Your task to perform on an android device: Go to accessibility settings Image 0: 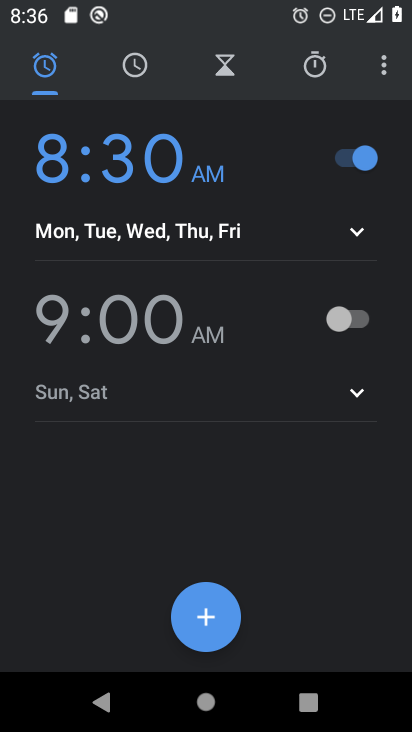
Step 0: press home button
Your task to perform on an android device: Go to accessibility settings Image 1: 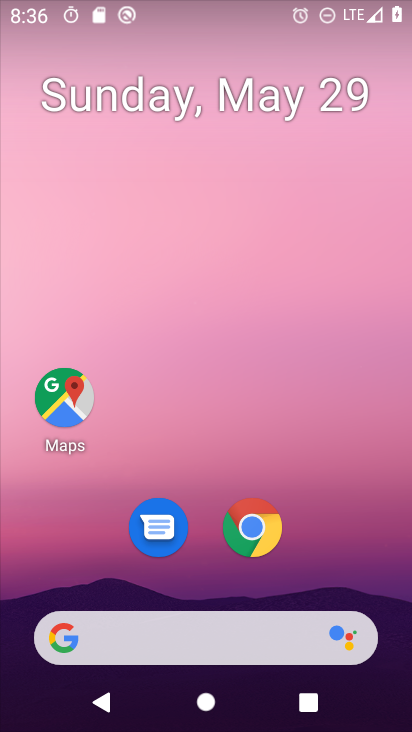
Step 1: drag from (370, 622) to (336, 109)
Your task to perform on an android device: Go to accessibility settings Image 2: 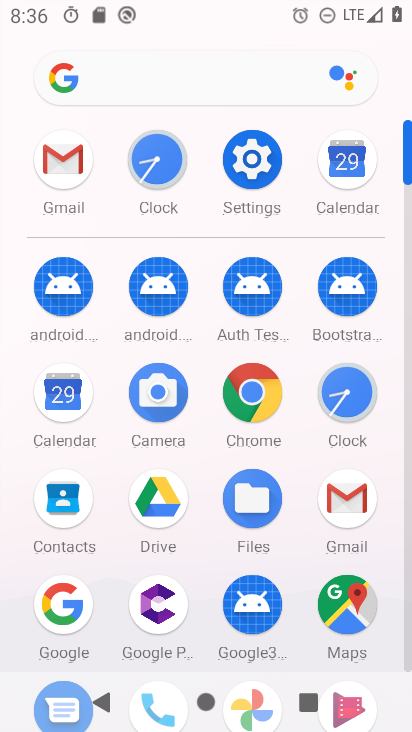
Step 2: click (257, 173)
Your task to perform on an android device: Go to accessibility settings Image 3: 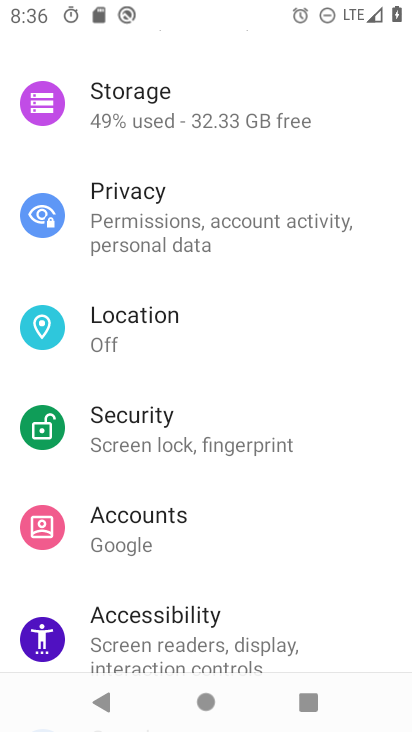
Step 3: click (173, 623)
Your task to perform on an android device: Go to accessibility settings Image 4: 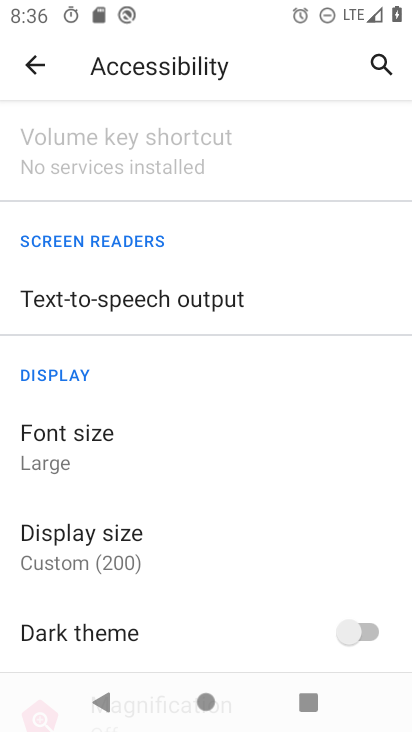
Step 4: task complete